Your task to perform on an android device: turn on priority inbox in the gmail app Image 0: 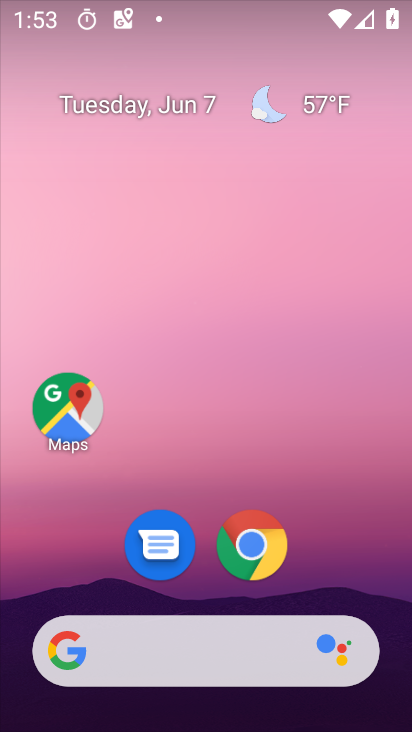
Step 0: drag from (347, 388) to (219, 23)
Your task to perform on an android device: turn on priority inbox in the gmail app Image 1: 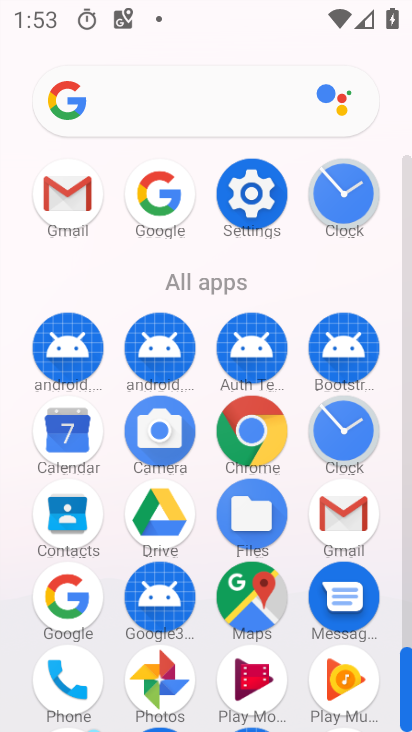
Step 1: click (332, 495)
Your task to perform on an android device: turn on priority inbox in the gmail app Image 2: 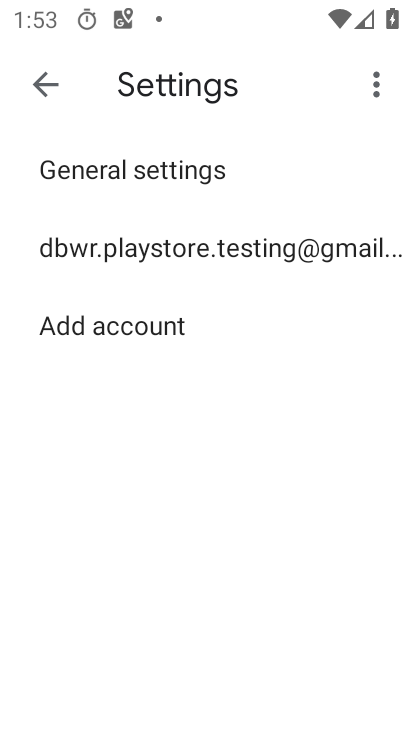
Step 2: click (372, 82)
Your task to perform on an android device: turn on priority inbox in the gmail app Image 3: 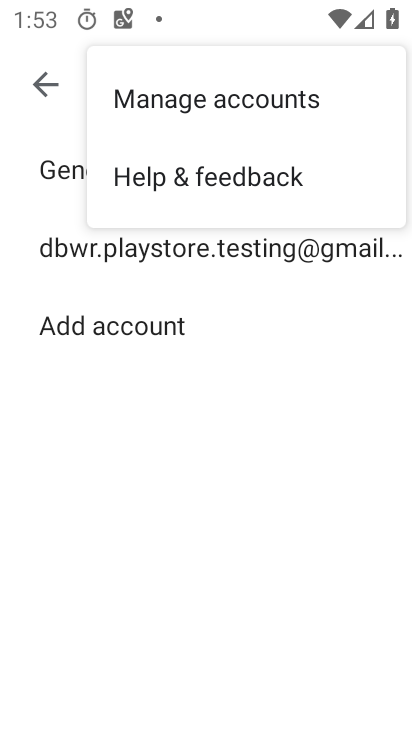
Step 3: click (66, 258)
Your task to perform on an android device: turn on priority inbox in the gmail app Image 4: 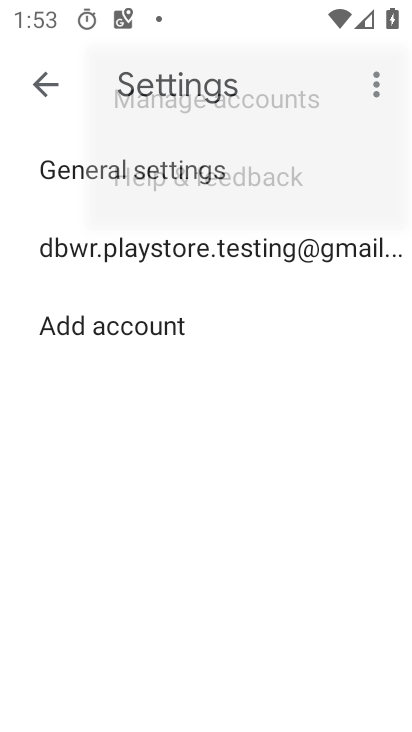
Step 4: click (77, 255)
Your task to perform on an android device: turn on priority inbox in the gmail app Image 5: 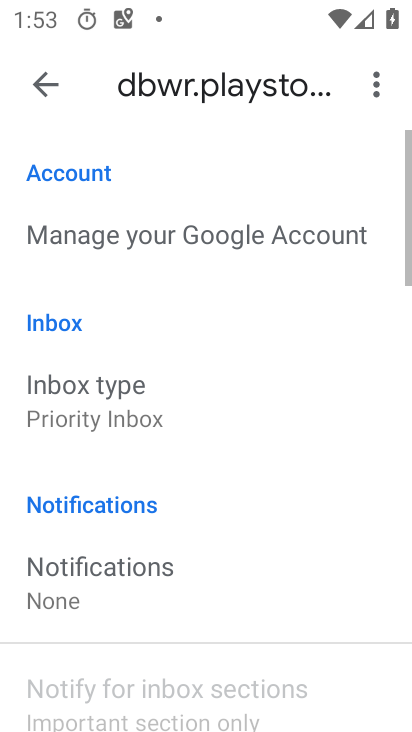
Step 5: click (148, 417)
Your task to perform on an android device: turn on priority inbox in the gmail app Image 6: 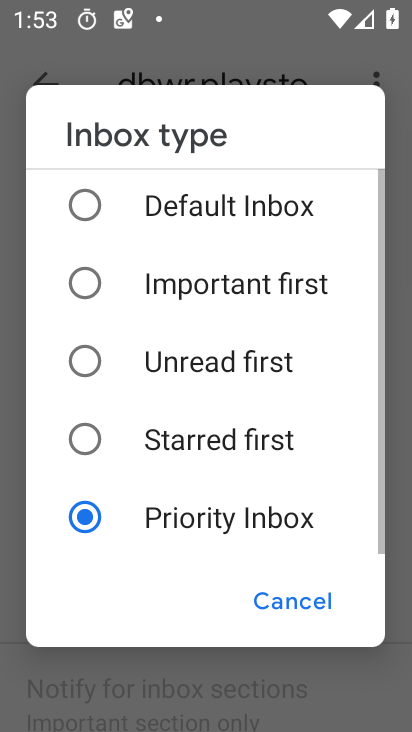
Step 6: task complete